Your task to perform on an android device: turn on sleep mode Image 0: 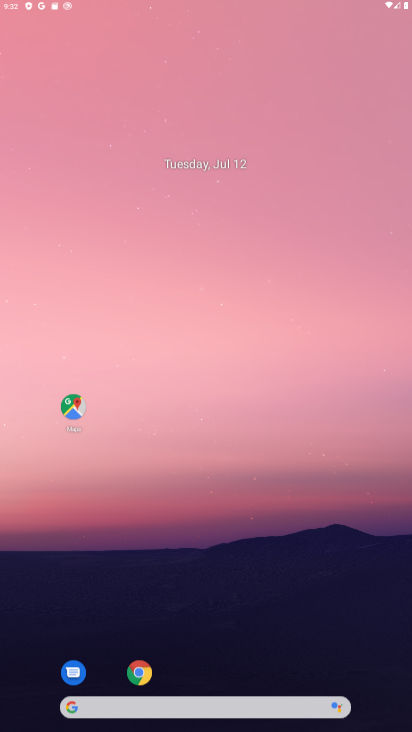
Step 0: click (283, 77)
Your task to perform on an android device: turn on sleep mode Image 1: 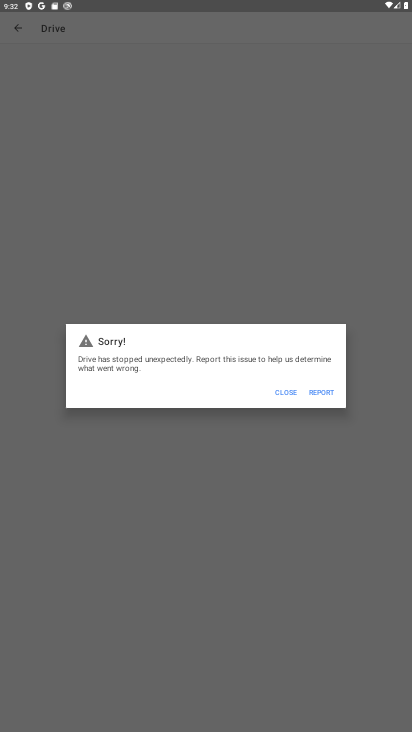
Step 1: press home button
Your task to perform on an android device: turn on sleep mode Image 2: 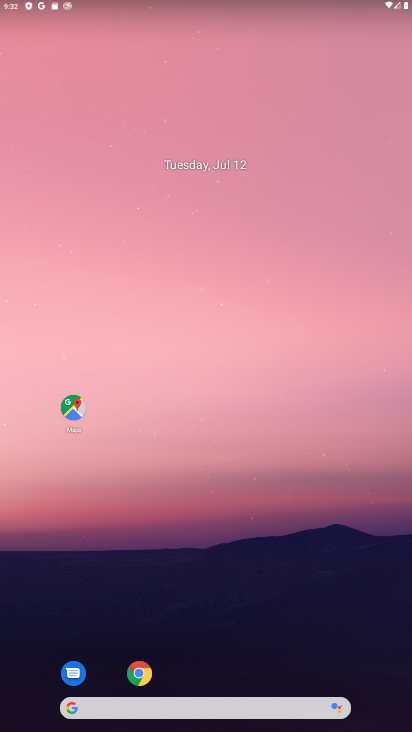
Step 2: drag from (263, 655) to (338, 146)
Your task to perform on an android device: turn on sleep mode Image 3: 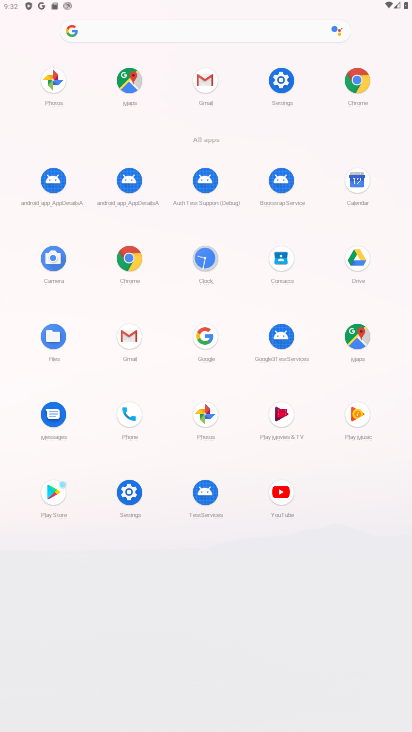
Step 3: click (278, 75)
Your task to perform on an android device: turn on sleep mode Image 4: 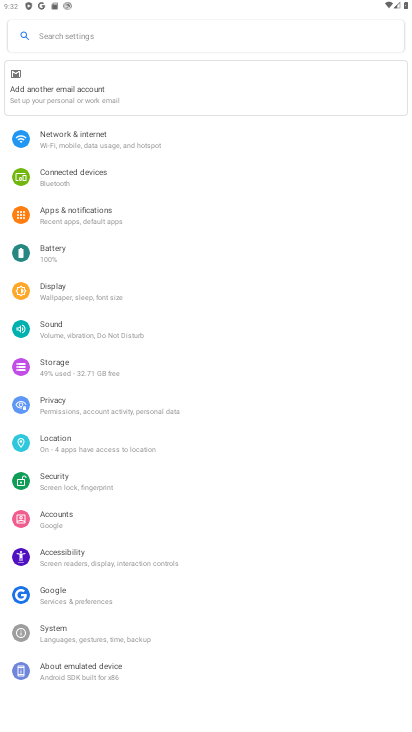
Step 4: click (138, 330)
Your task to perform on an android device: turn on sleep mode Image 5: 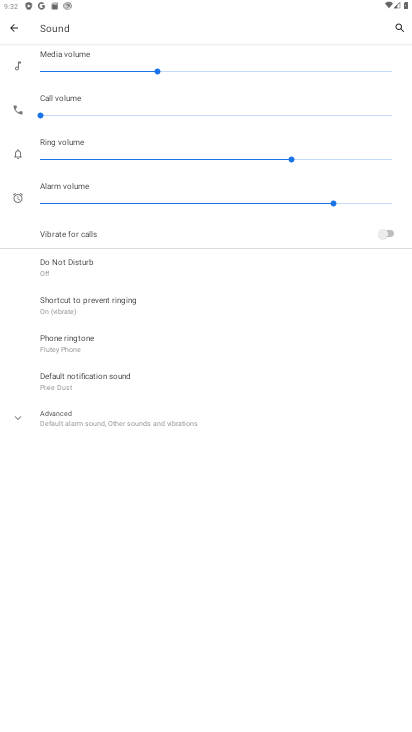
Step 5: click (9, 31)
Your task to perform on an android device: turn on sleep mode Image 6: 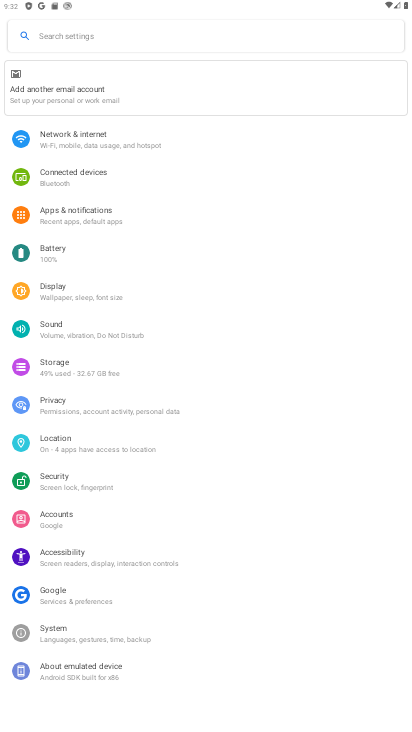
Step 6: click (63, 289)
Your task to perform on an android device: turn on sleep mode Image 7: 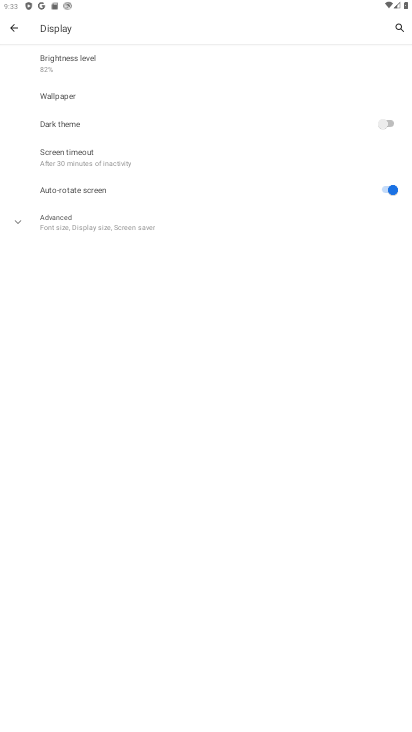
Step 7: click (333, 227)
Your task to perform on an android device: turn on sleep mode Image 8: 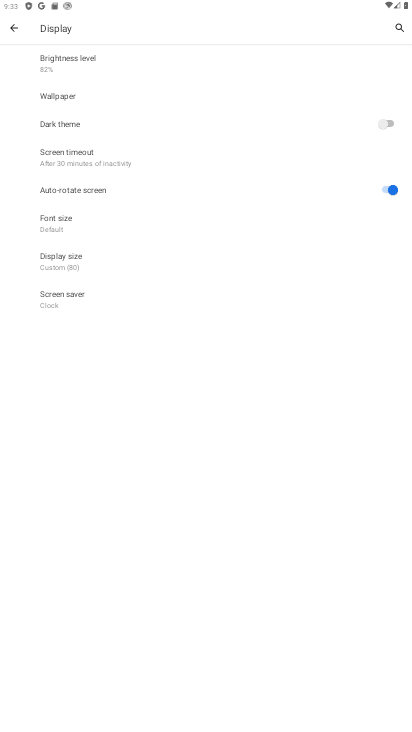
Step 8: task complete